Your task to perform on an android device: turn on data saver in the chrome app Image 0: 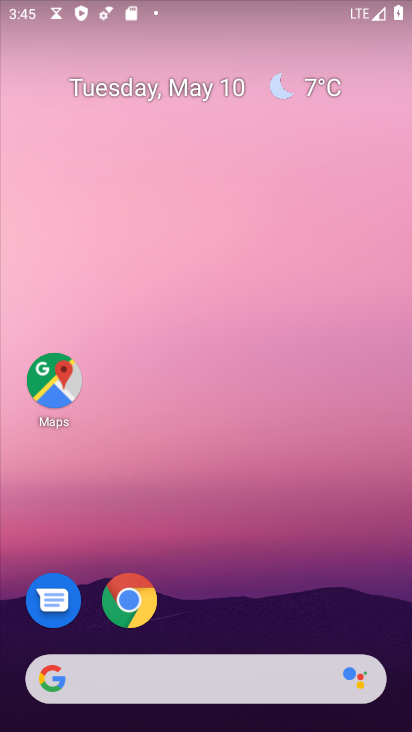
Step 0: click (132, 604)
Your task to perform on an android device: turn on data saver in the chrome app Image 1: 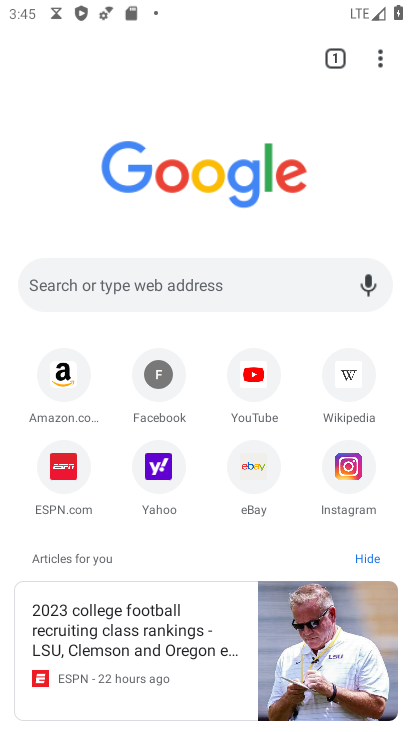
Step 1: click (390, 50)
Your task to perform on an android device: turn on data saver in the chrome app Image 2: 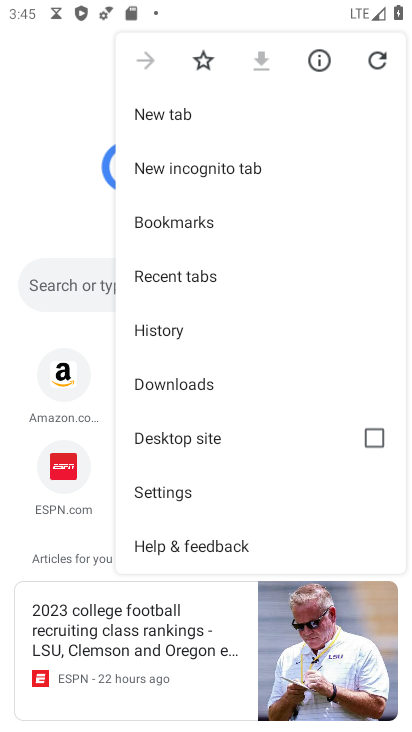
Step 2: click (291, 489)
Your task to perform on an android device: turn on data saver in the chrome app Image 3: 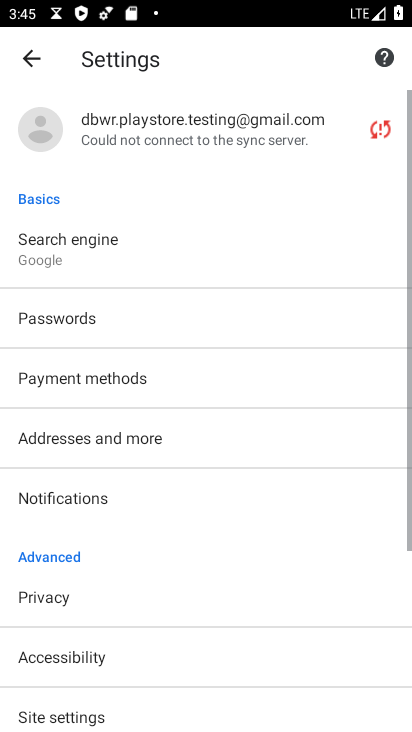
Step 3: task complete